Your task to perform on an android device: turn off notifications in google photos Image 0: 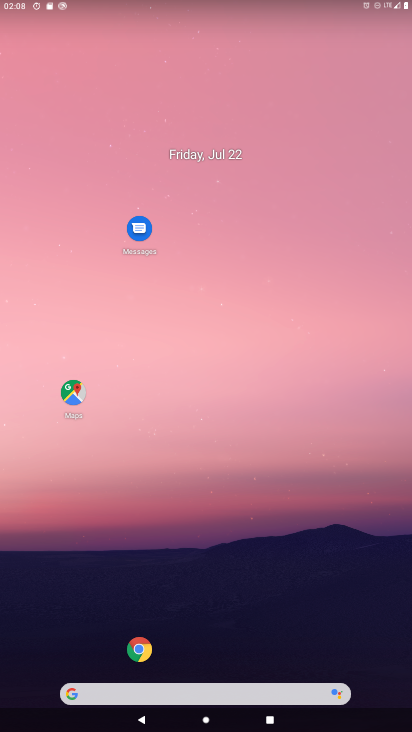
Step 0: drag from (75, 620) to (218, 88)
Your task to perform on an android device: turn off notifications in google photos Image 1: 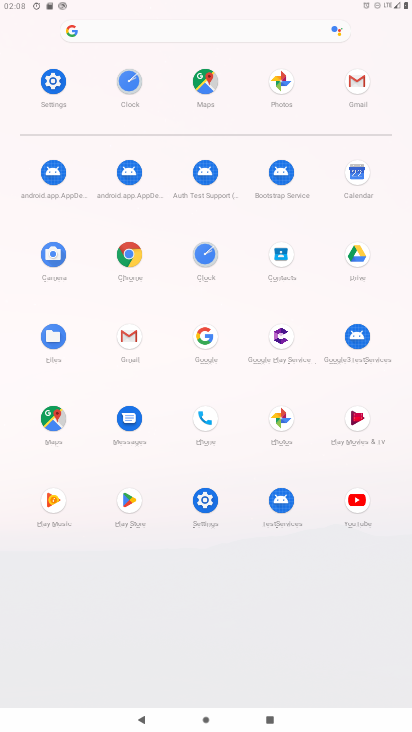
Step 1: click (275, 422)
Your task to perform on an android device: turn off notifications in google photos Image 2: 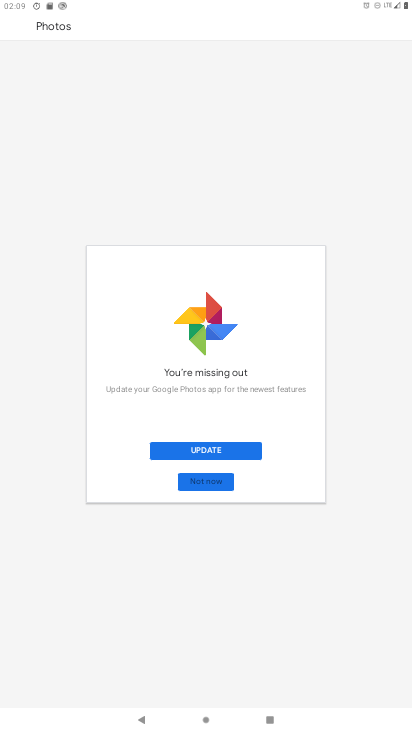
Step 2: press home button
Your task to perform on an android device: turn off notifications in google photos Image 3: 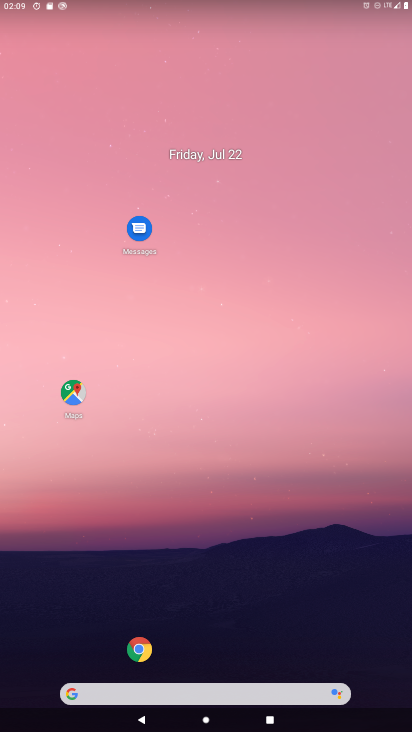
Step 3: drag from (21, 684) to (188, 259)
Your task to perform on an android device: turn off notifications in google photos Image 4: 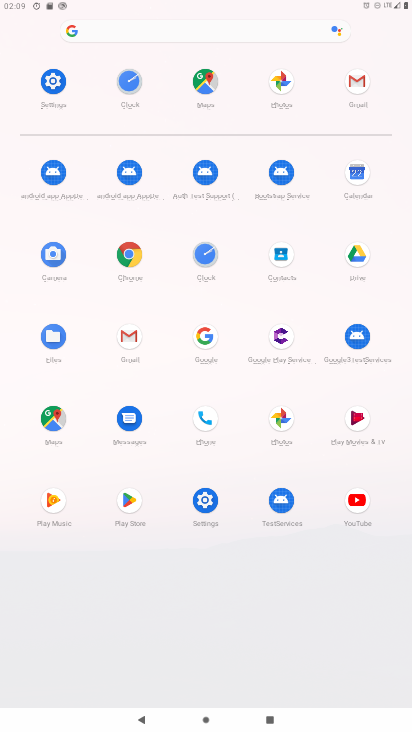
Step 4: click (279, 422)
Your task to perform on an android device: turn off notifications in google photos Image 5: 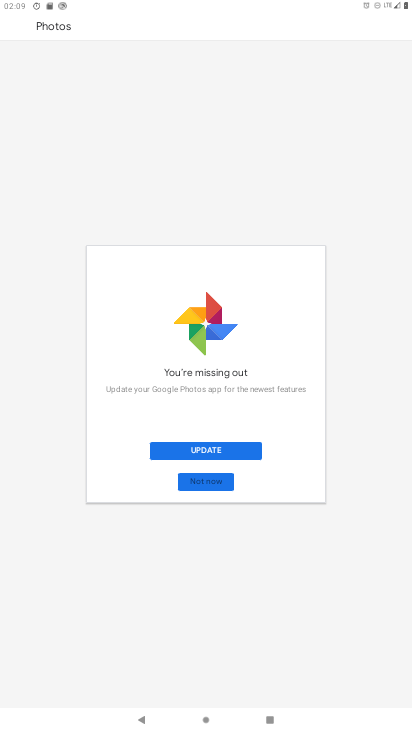
Step 5: press home button
Your task to perform on an android device: turn off notifications in google photos Image 6: 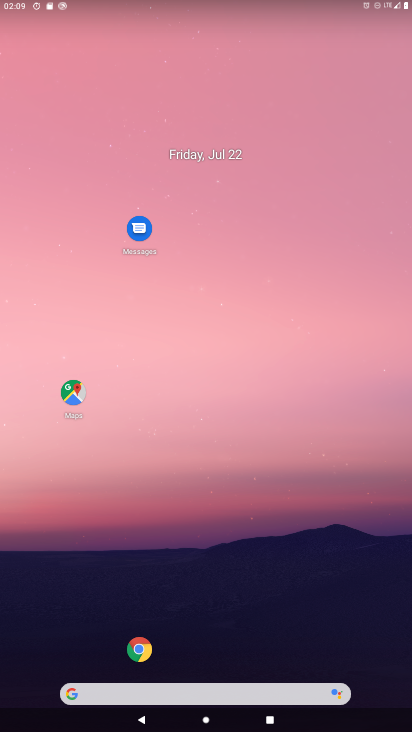
Step 6: drag from (87, 547) to (249, 153)
Your task to perform on an android device: turn off notifications in google photos Image 7: 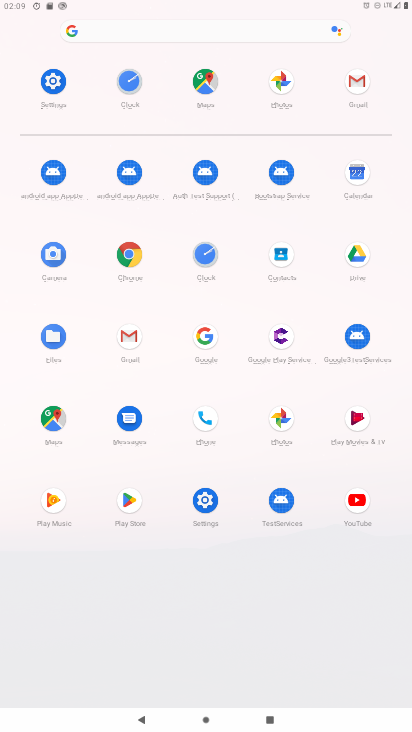
Step 7: click (274, 426)
Your task to perform on an android device: turn off notifications in google photos Image 8: 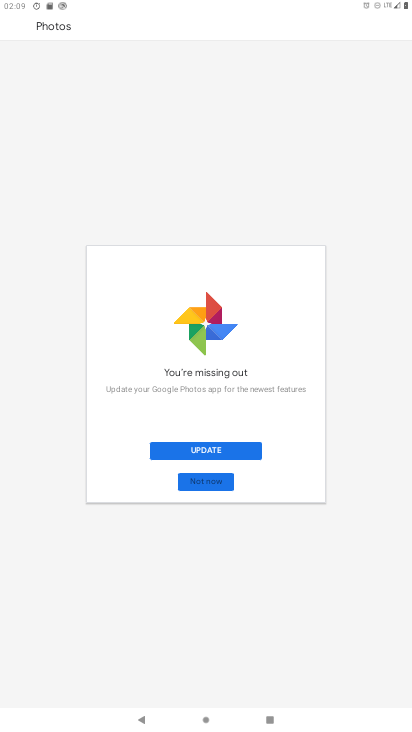
Step 8: click (213, 471)
Your task to perform on an android device: turn off notifications in google photos Image 9: 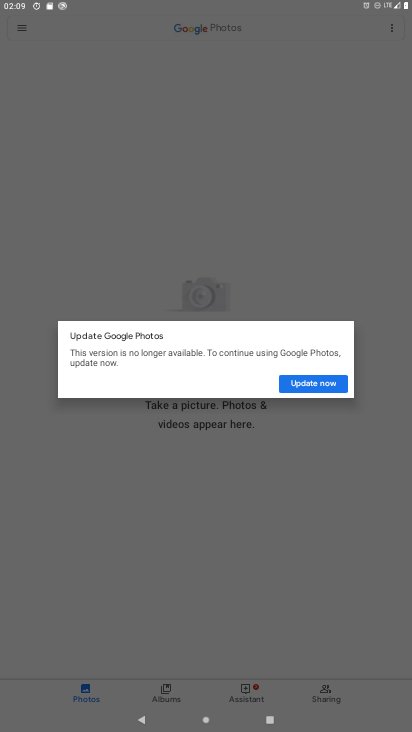
Step 9: click (303, 383)
Your task to perform on an android device: turn off notifications in google photos Image 10: 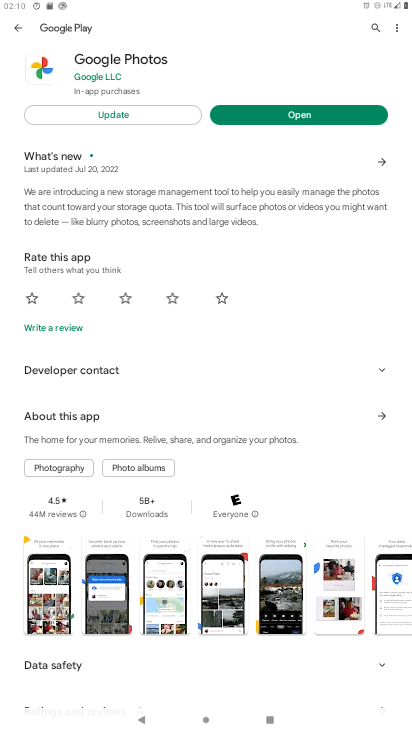
Step 10: click (15, 29)
Your task to perform on an android device: turn off notifications in google photos Image 11: 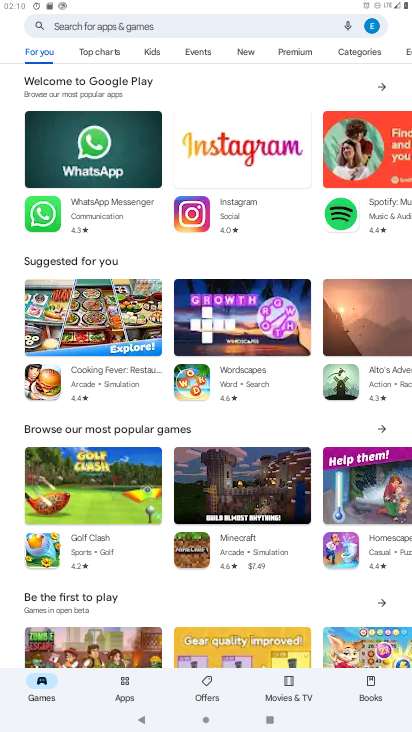
Step 11: task complete